Your task to perform on an android device: turn on location history Image 0: 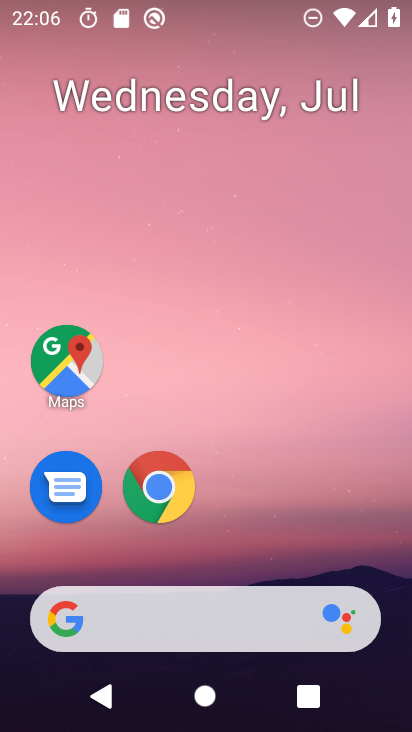
Step 0: drag from (361, 543) to (369, 194)
Your task to perform on an android device: turn on location history Image 1: 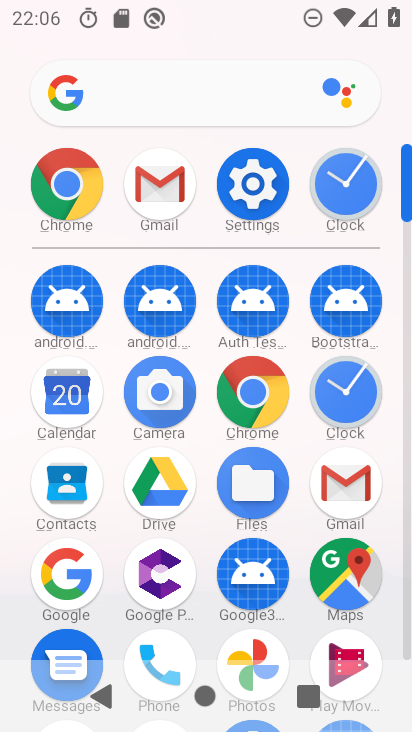
Step 1: click (264, 187)
Your task to perform on an android device: turn on location history Image 2: 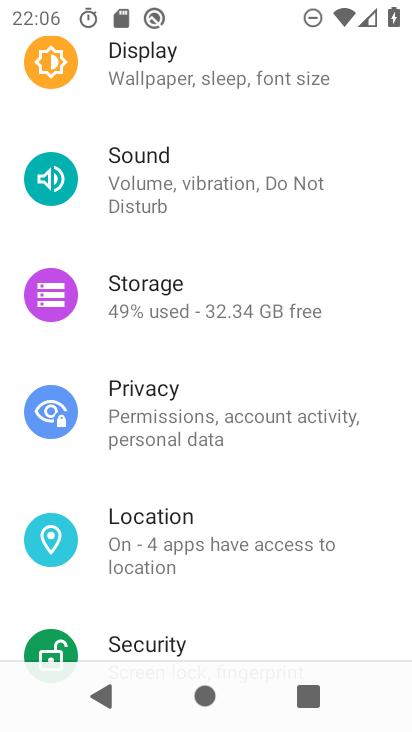
Step 2: drag from (366, 590) to (352, 473)
Your task to perform on an android device: turn on location history Image 3: 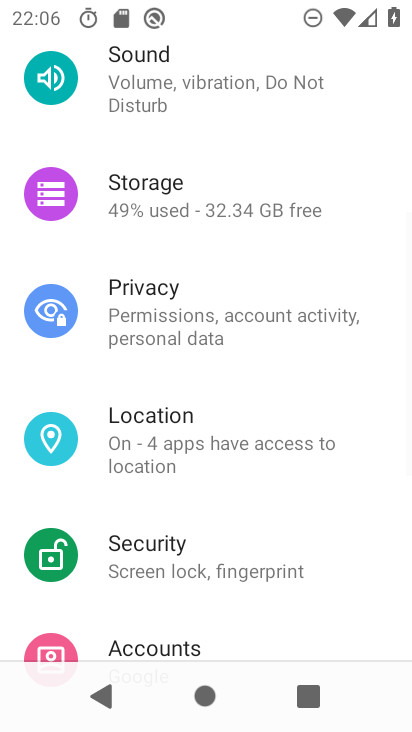
Step 3: drag from (353, 527) to (351, 251)
Your task to perform on an android device: turn on location history Image 4: 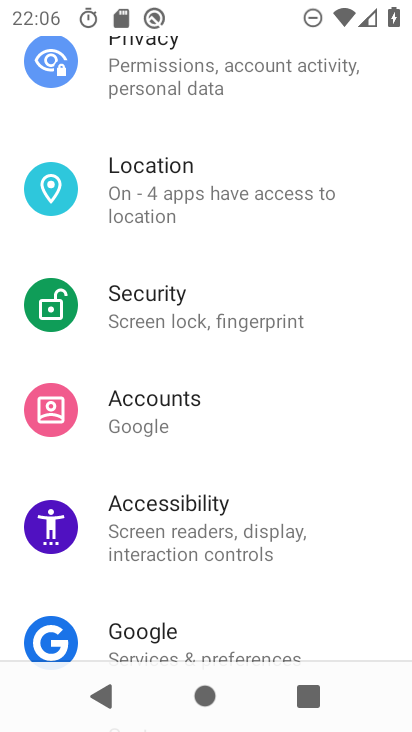
Step 4: drag from (357, 439) to (352, 282)
Your task to perform on an android device: turn on location history Image 5: 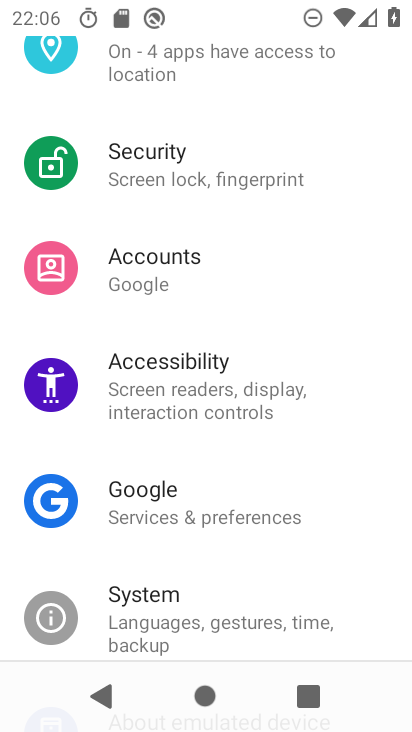
Step 5: drag from (352, 421) to (356, 349)
Your task to perform on an android device: turn on location history Image 6: 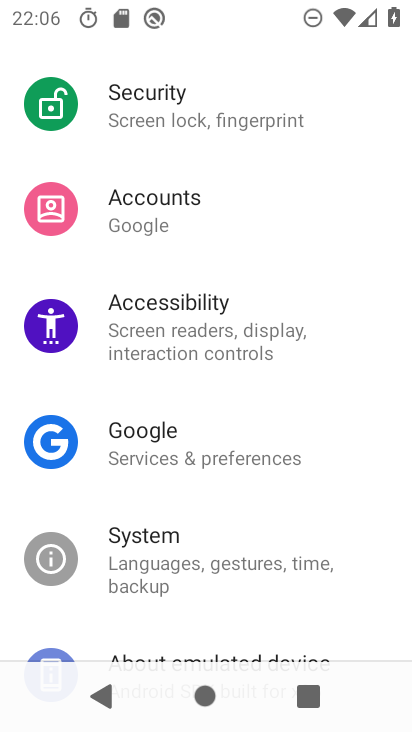
Step 6: drag from (356, 325) to (345, 416)
Your task to perform on an android device: turn on location history Image 7: 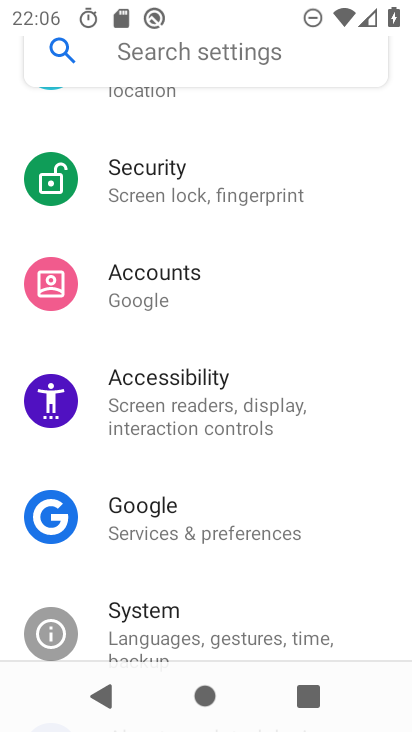
Step 7: drag from (339, 291) to (338, 408)
Your task to perform on an android device: turn on location history Image 8: 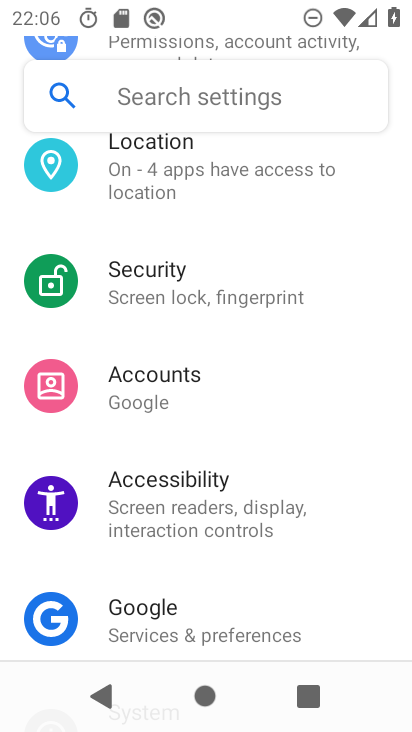
Step 8: drag from (337, 301) to (340, 403)
Your task to perform on an android device: turn on location history Image 9: 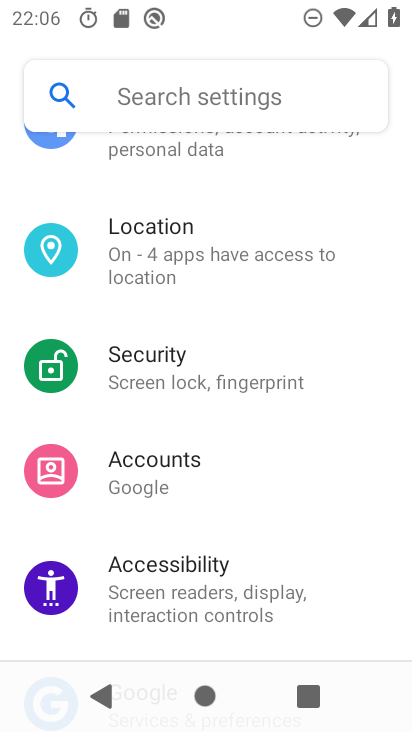
Step 9: drag from (362, 288) to (350, 466)
Your task to perform on an android device: turn on location history Image 10: 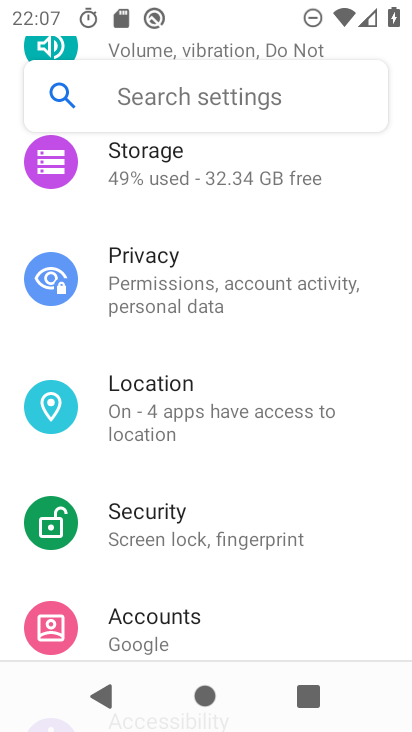
Step 10: click (301, 428)
Your task to perform on an android device: turn on location history Image 11: 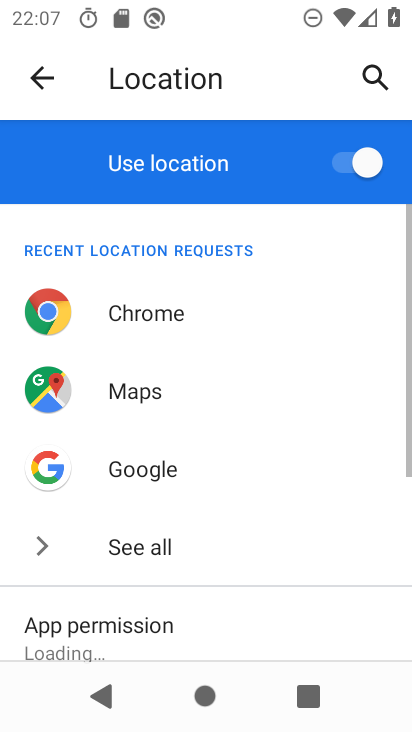
Step 11: drag from (312, 465) to (312, 375)
Your task to perform on an android device: turn on location history Image 12: 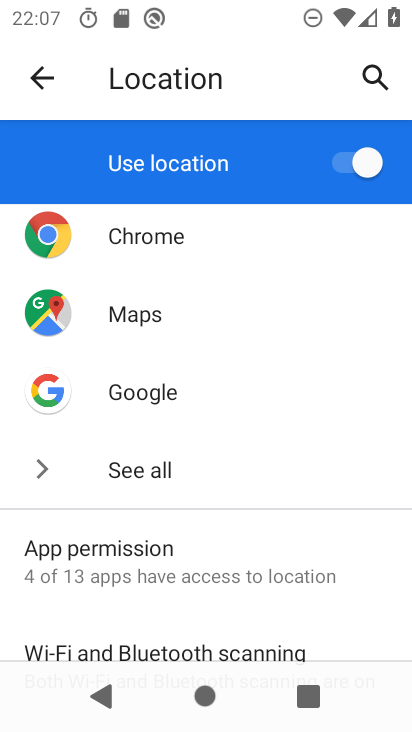
Step 12: drag from (319, 475) to (320, 397)
Your task to perform on an android device: turn on location history Image 13: 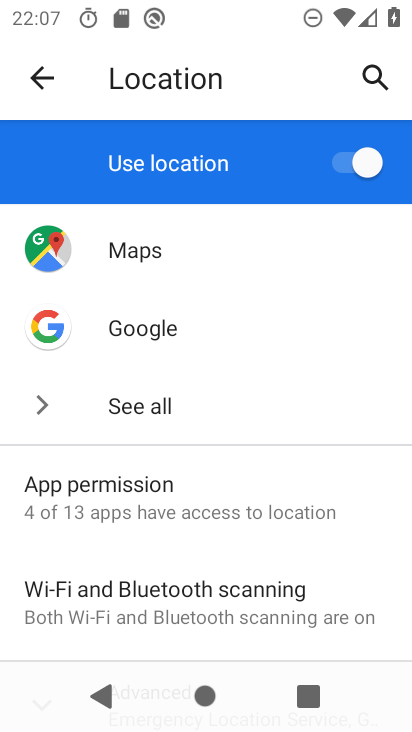
Step 13: drag from (345, 525) to (344, 423)
Your task to perform on an android device: turn on location history Image 14: 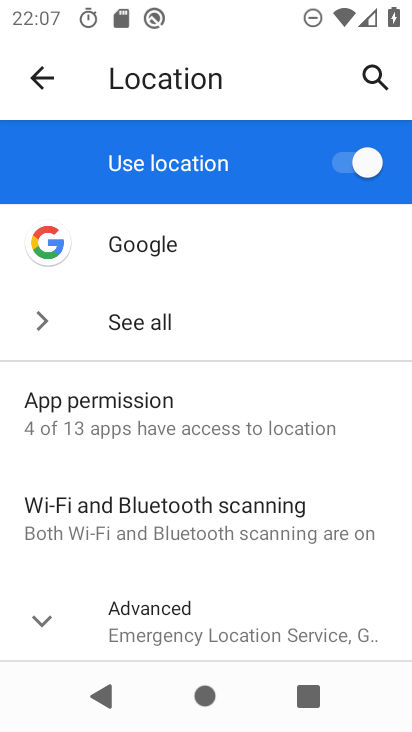
Step 14: drag from (342, 559) to (342, 428)
Your task to perform on an android device: turn on location history Image 15: 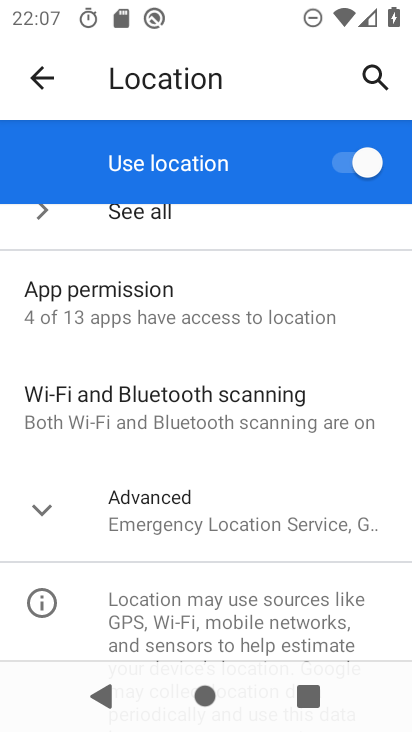
Step 15: click (337, 539)
Your task to perform on an android device: turn on location history Image 16: 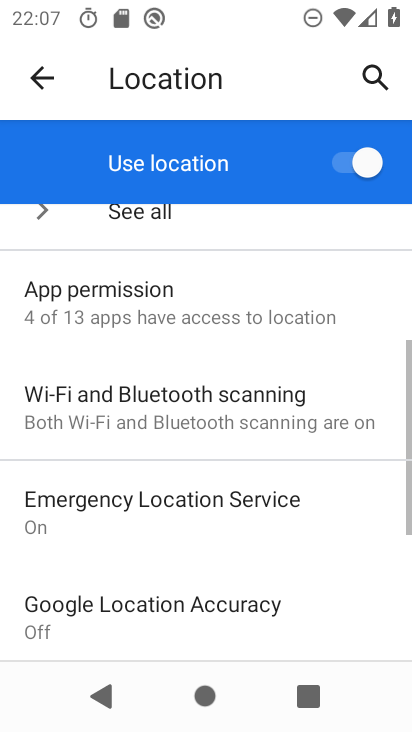
Step 16: drag from (334, 556) to (342, 469)
Your task to perform on an android device: turn on location history Image 17: 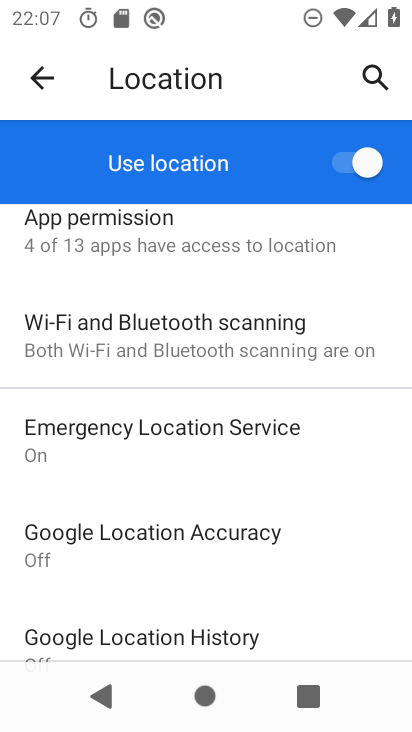
Step 17: drag from (335, 545) to (338, 477)
Your task to perform on an android device: turn on location history Image 18: 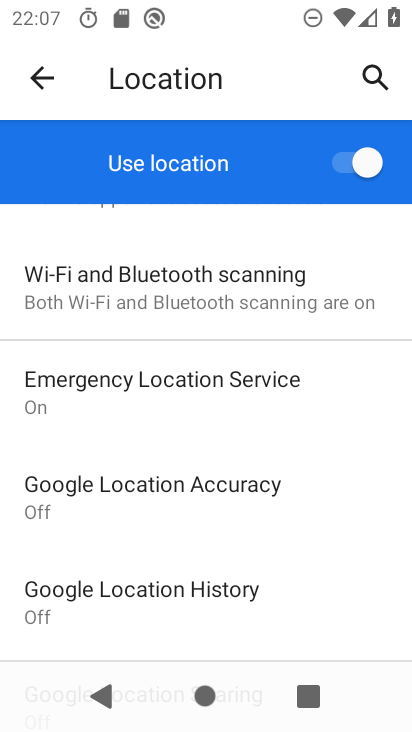
Step 18: drag from (331, 555) to (339, 475)
Your task to perform on an android device: turn on location history Image 19: 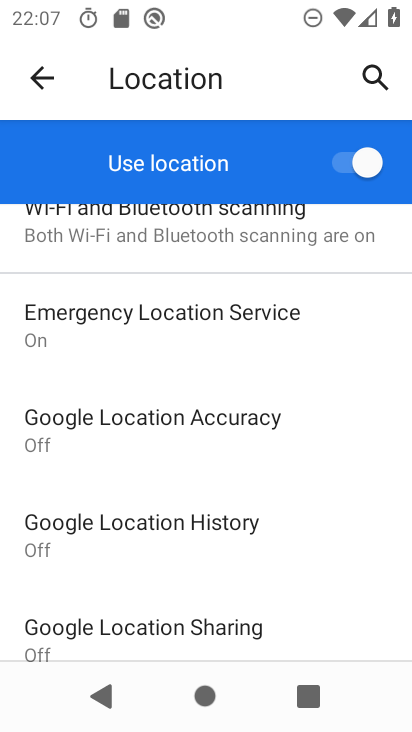
Step 19: drag from (350, 553) to (347, 456)
Your task to perform on an android device: turn on location history Image 20: 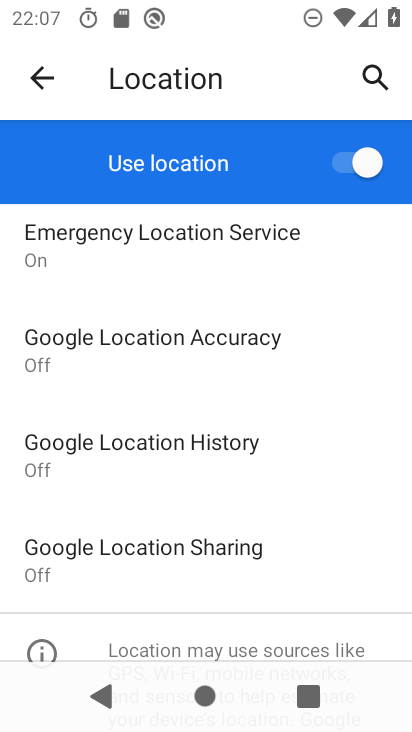
Step 20: click (247, 452)
Your task to perform on an android device: turn on location history Image 21: 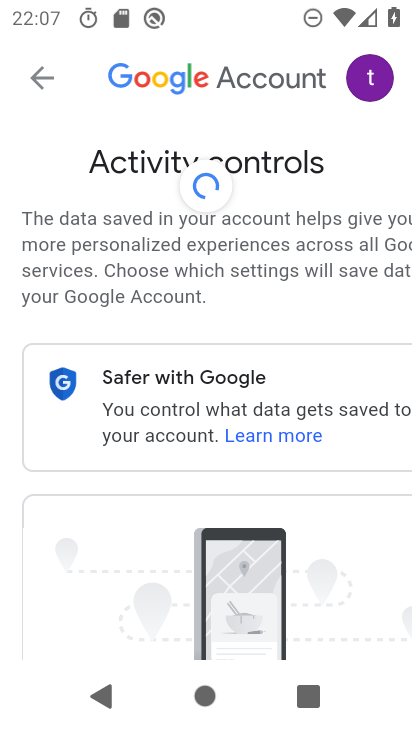
Step 21: drag from (264, 481) to (267, 374)
Your task to perform on an android device: turn on location history Image 22: 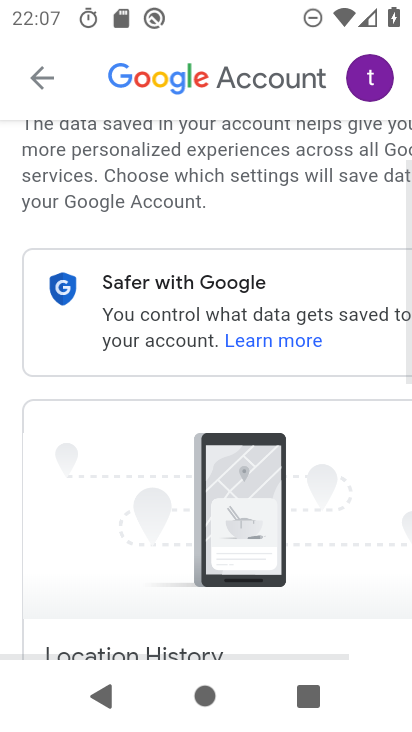
Step 22: drag from (305, 510) to (310, 368)
Your task to perform on an android device: turn on location history Image 23: 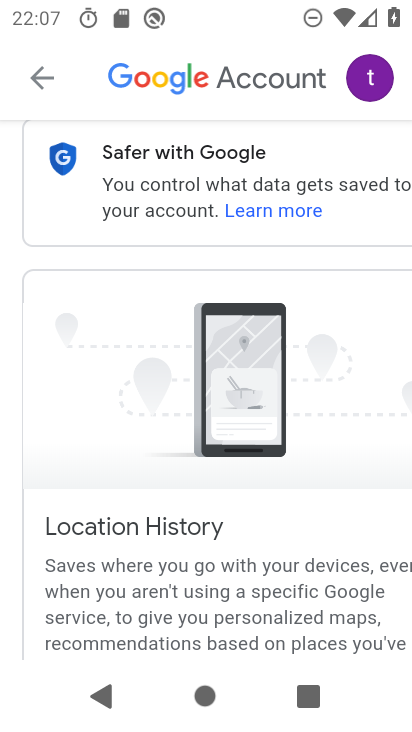
Step 23: drag from (285, 535) to (294, 391)
Your task to perform on an android device: turn on location history Image 24: 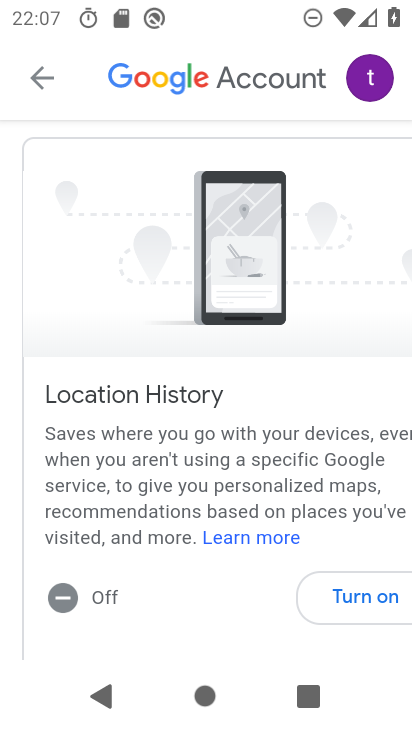
Step 24: click (381, 582)
Your task to perform on an android device: turn on location history Image 25: 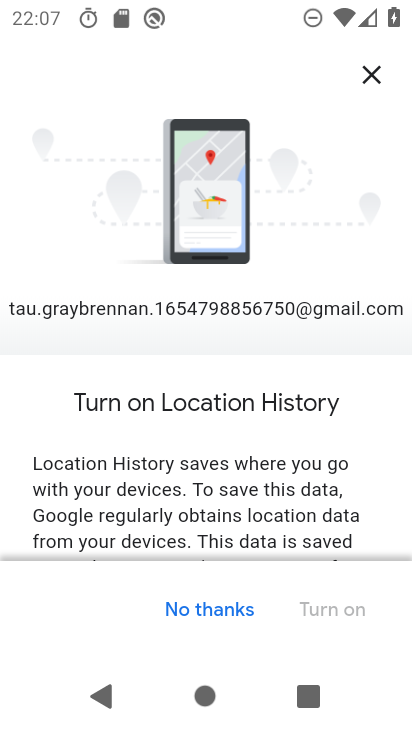
Step 25: drag from (300, 497) to (315, 301)
Your task to perform on an android device: turn on location history Image 26: 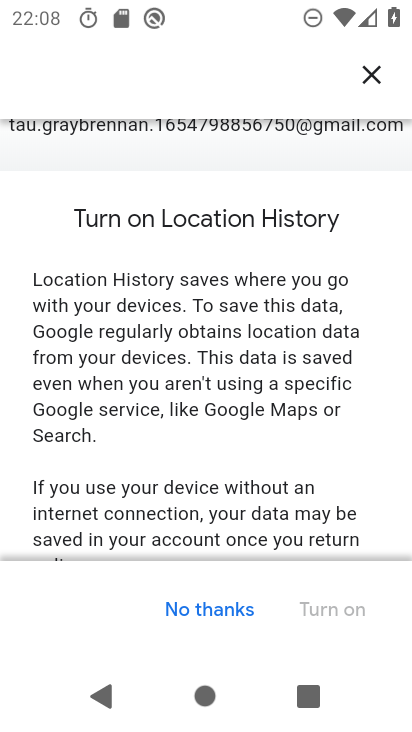
Step 26: drag from (282, 394) to (296, 269)
Your task to perform on an android device: turn on location history Image 27: 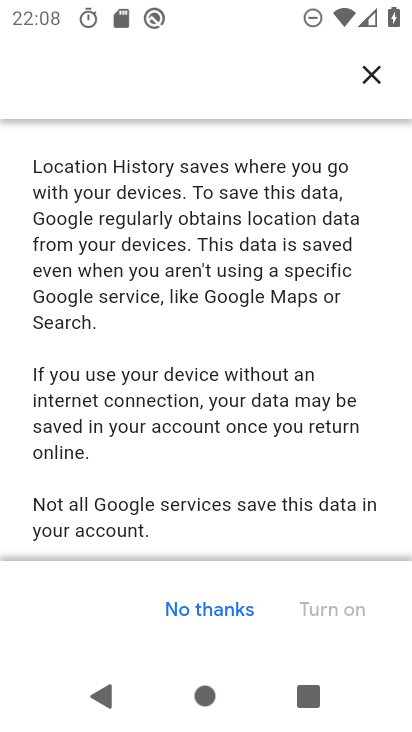
Step 27: drag from (313, 365) to (313, 293)
Your task to perform on an android device: turn on location history Image 28: 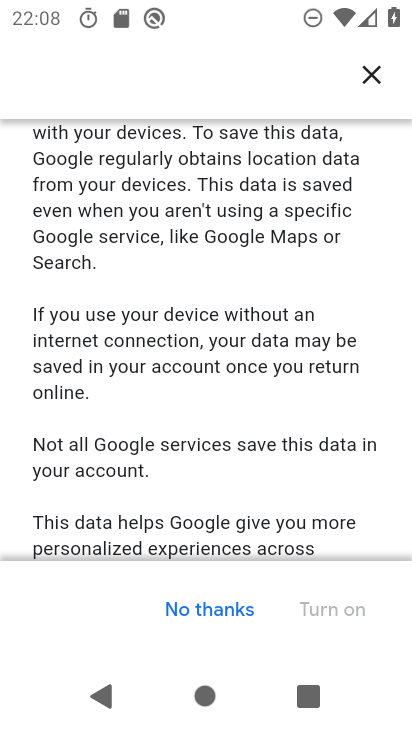
Step 28: drag from (272, 466) to (276, 308)
Your task to perform on an android device: turn on location history Image 29: 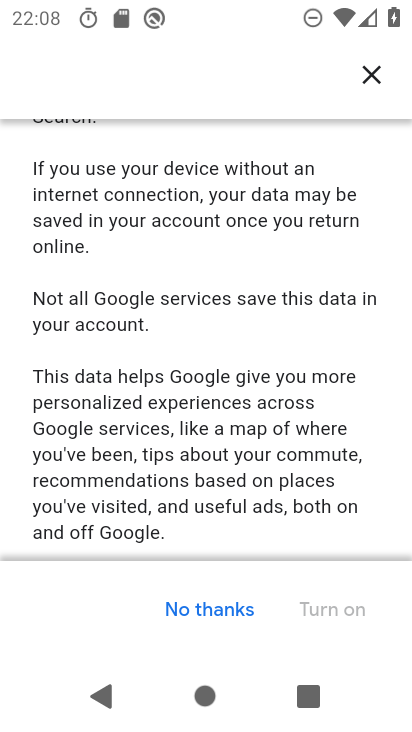
Step 29: drag from (286, 451) to (290, 250)
Your task to perform on an android device: turn on location history Image 30: 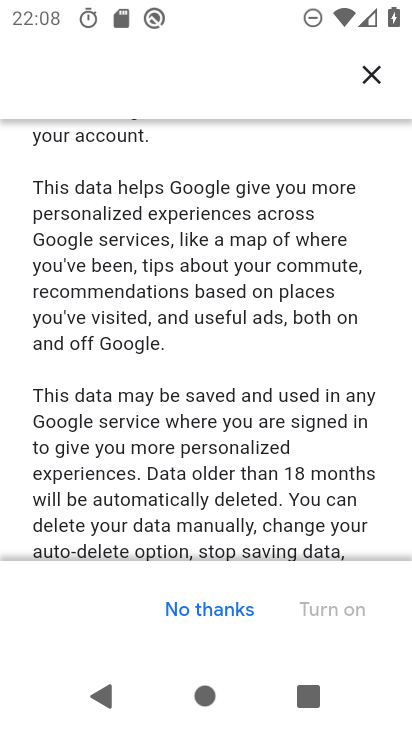
Step 30: drag from (252, 487) to (252, 319)
Your task to perform on an android device: turn on location history Image 31: 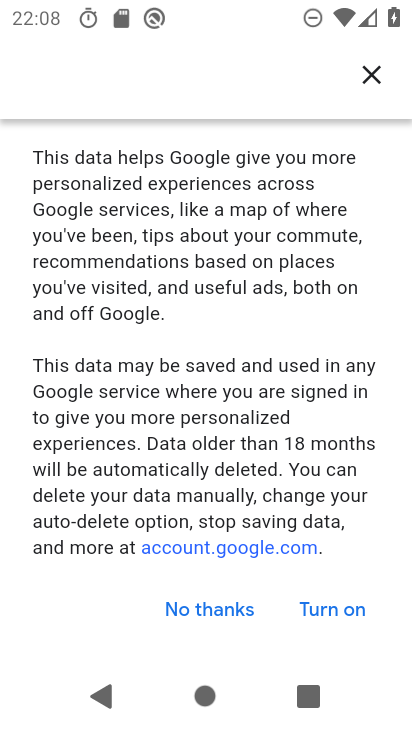
Step 31: click (337, 606)
Your task to perform on an android device: turn on location history Image 32: 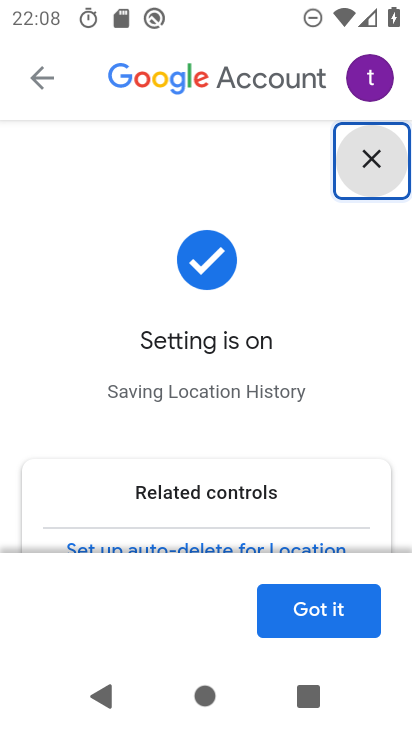
Step 32: task complete